Your task to perform on an android device: Clear all items from cart on costco. Image 0: 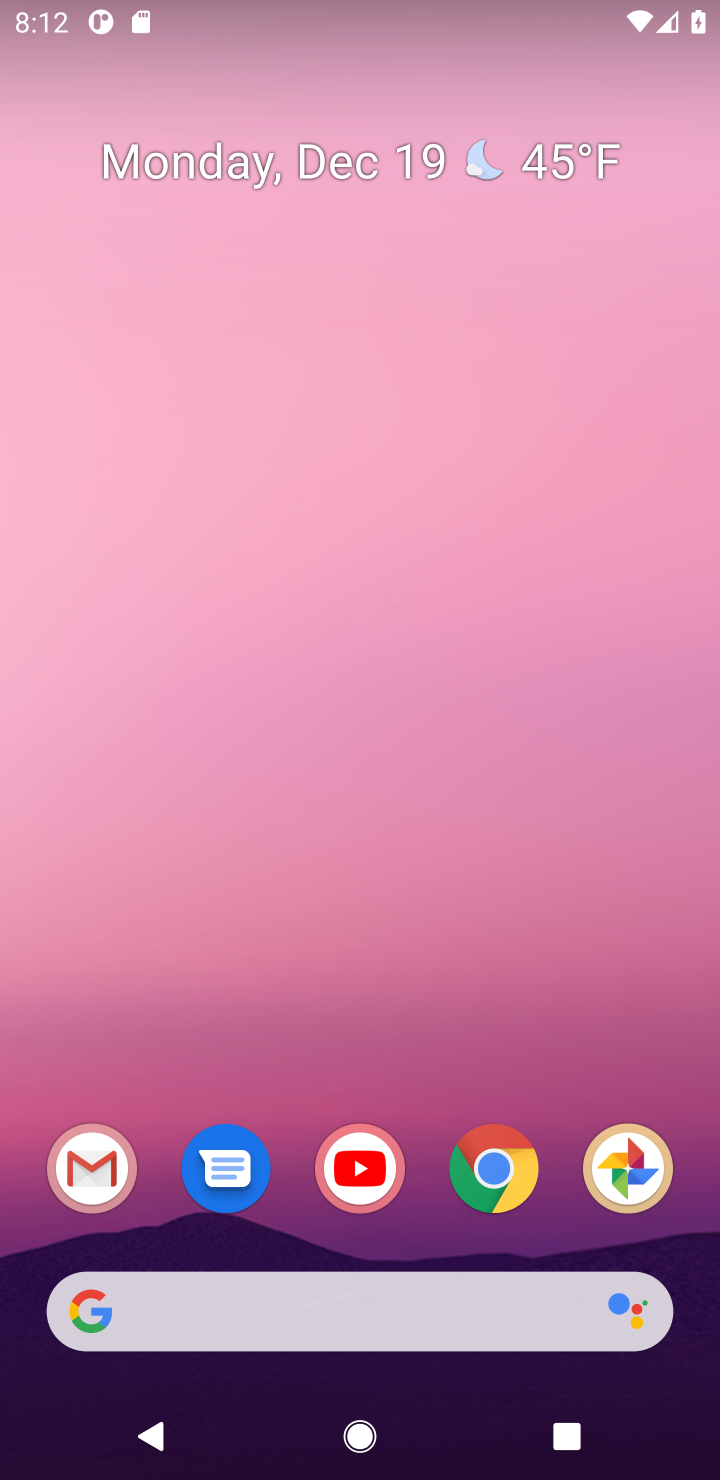
Step 0: click (503, 1182)
Your task to perform on an android device: Clear all items from cart on costco. Image 1: 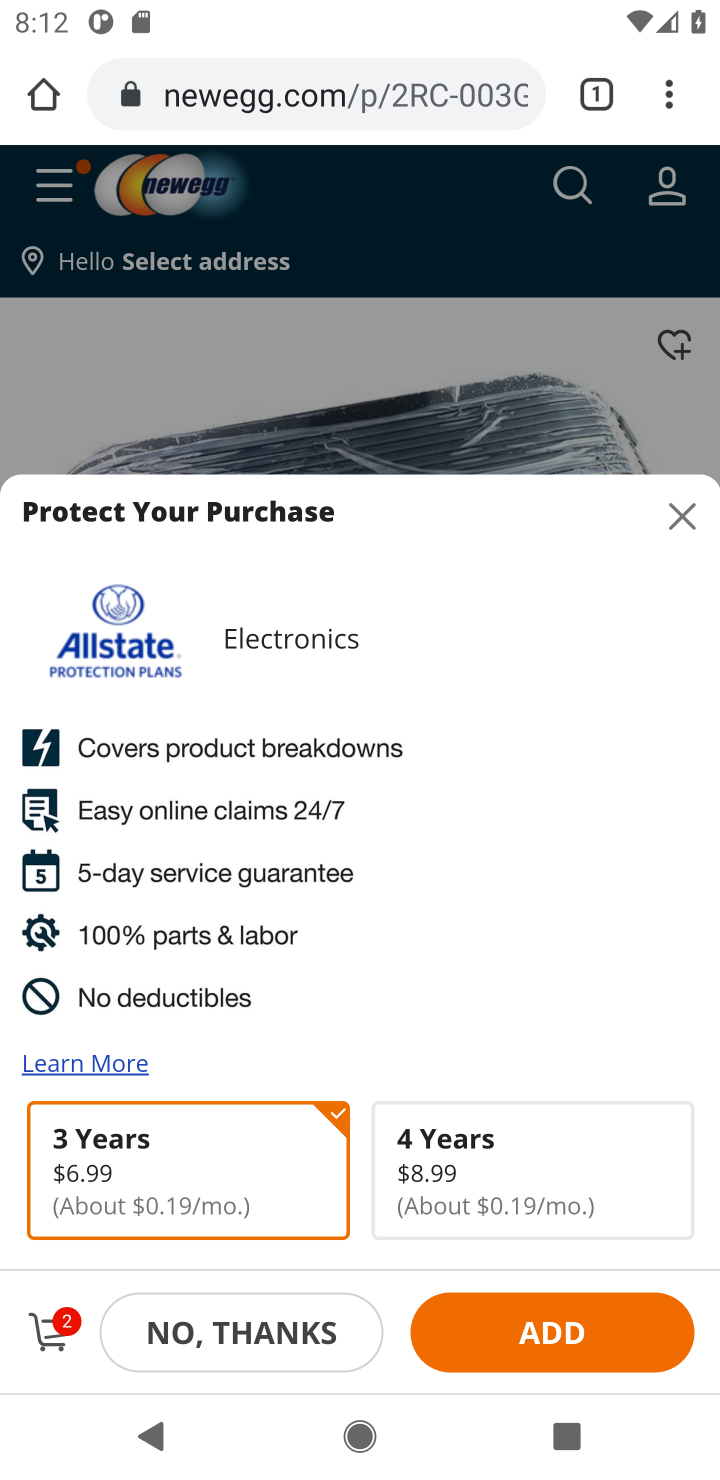
Step 1: click (287, 92)
Your task to perform on an android device: Clear all items from cart on costco. Image 2: 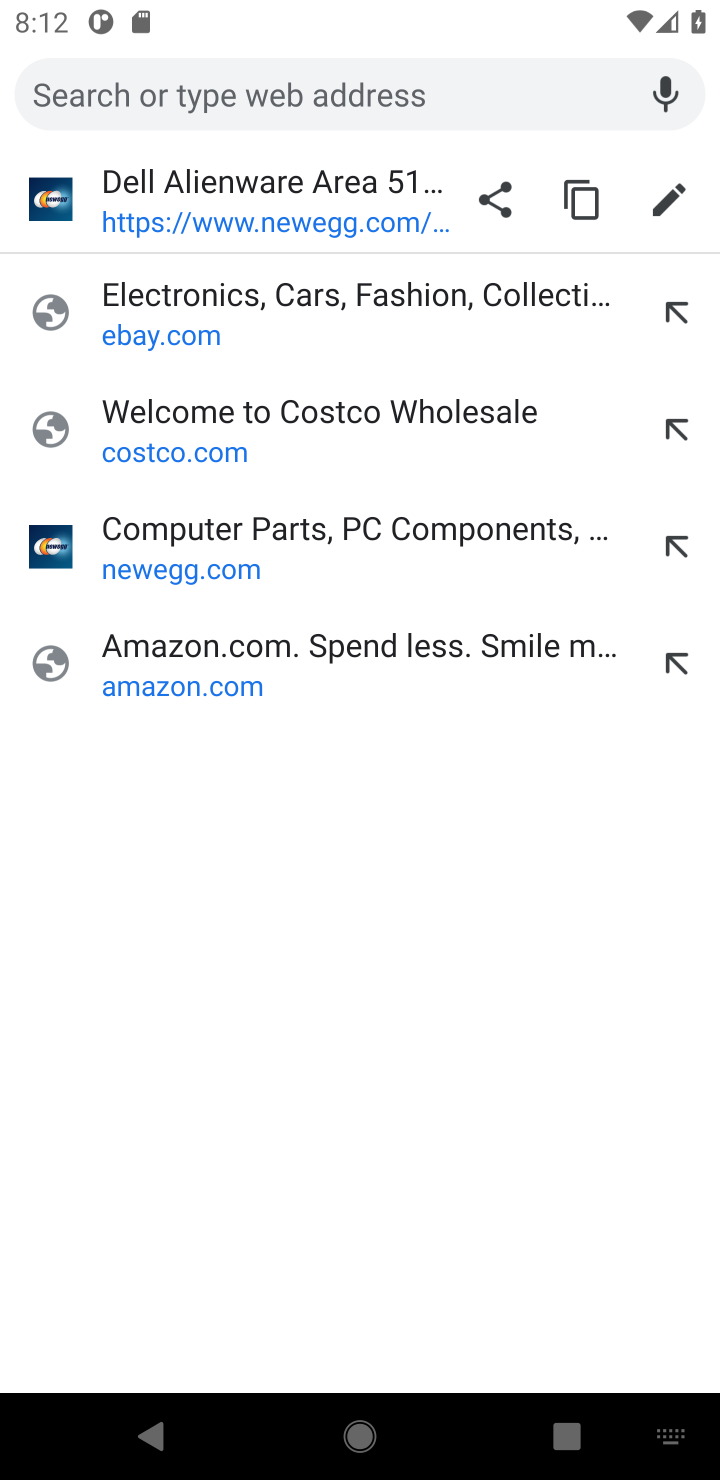
Step 2: click (142, 439)
Your task to perform on an android device: Clear all items from cart on costco. Image 3: 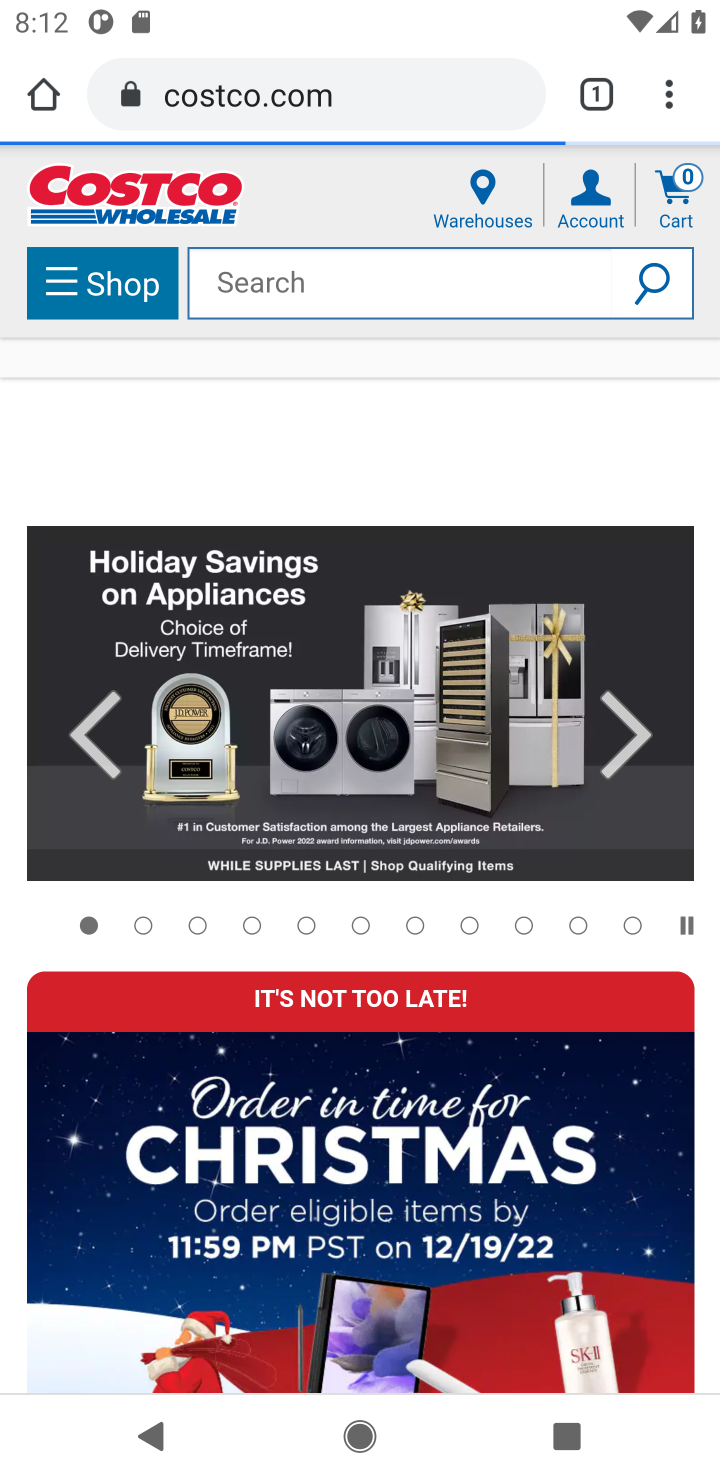
Step 3: click (681, 201)
Your task to perform on an android device: Clear all items from cart on costco. Image 4: 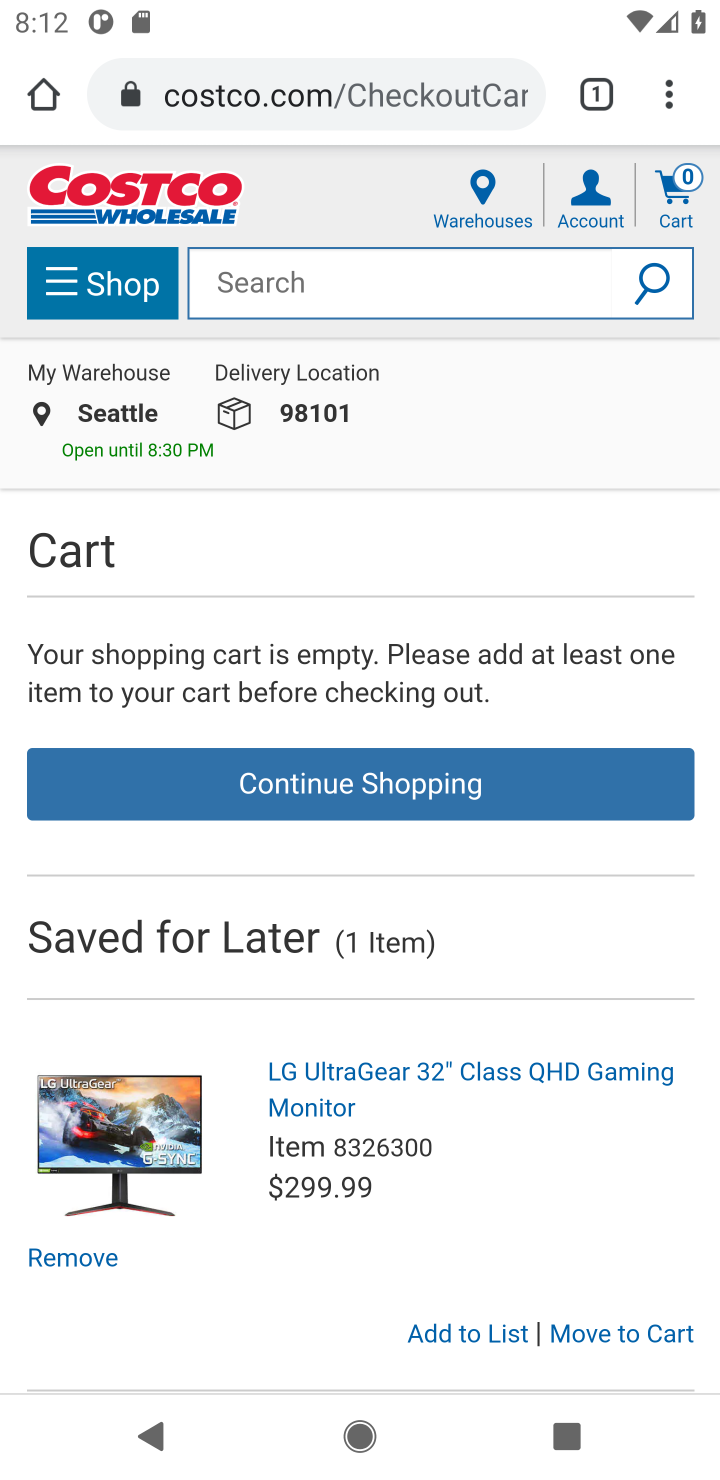
Step 4: task complete